Your task to perform on an android device: Open the stopwatch Image 0: 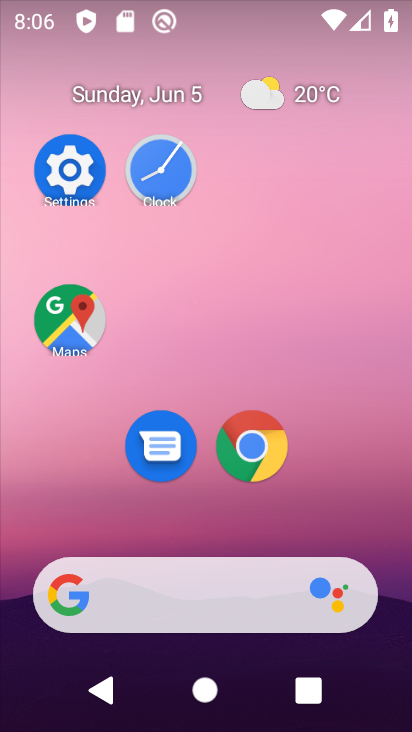
Step 0: click (174, 171)
Your task to perform on an android device: Open the stopwatch Image 1: 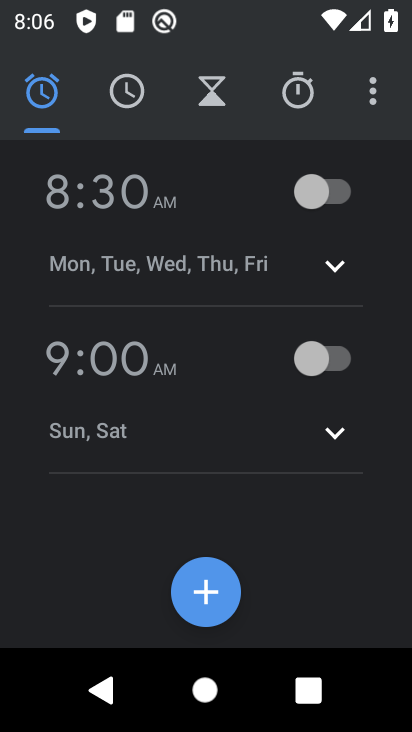
Step 1: click (311, 106)
Your task to perform on an android device: Open the stopwatch Image 2: 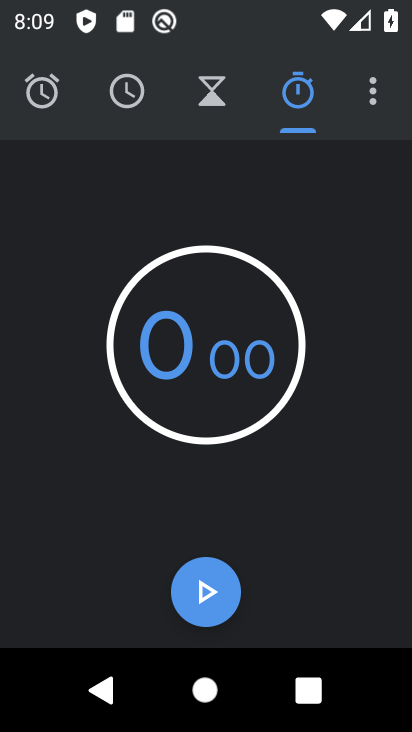
Step 2: task complete